Your task to perform on an android device: Open Youtube and go to the subscriptions tab Image 0: 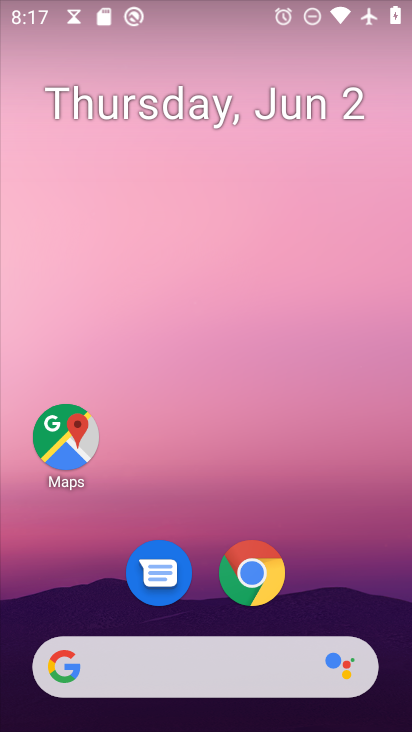
Step 0: press home button
Your task to perform on an android device: Open Youtube and go to the subscriptions tab Image 1: 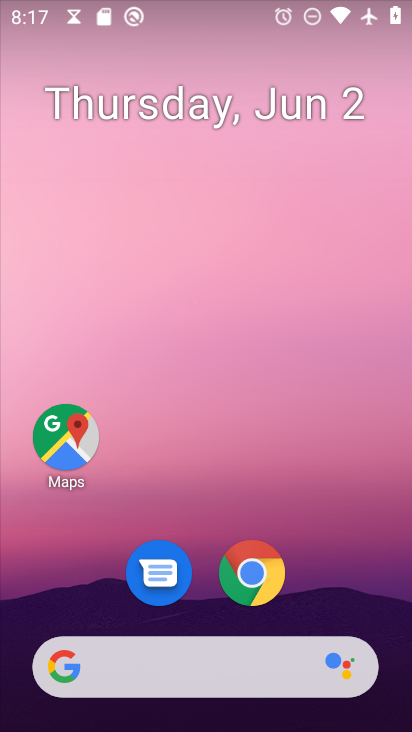
Step 1: drag from (223, 663) to (411, 66)
Your task to perform on an android device: Open Youtube and go to the subscriptions tab Image 2: 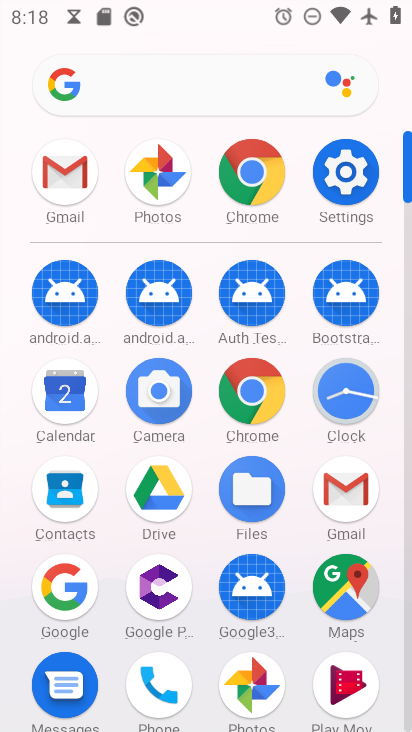
Step 2: drag from (313, 338) to (411, 120)
Your task to perform on an android device: Open Youtube and go to the subscriptions tab Image 3: 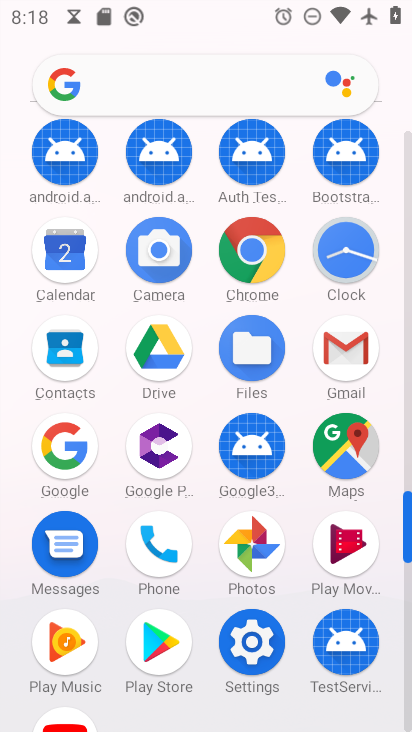
Step 3: drag from (224, 578) to (337, 182)
Your task to perform on an android device: Open Youtube and go to the subscriptions tab Image 4: 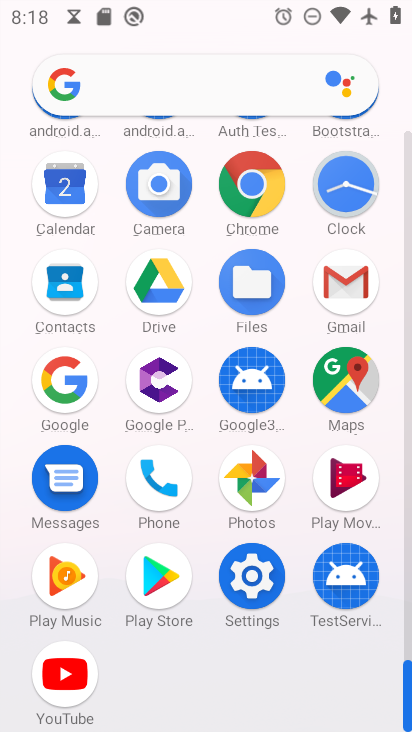
Step 4: click (63, 670)
Your task to perform on an android device: Open Youtube and go to the subscriptions tab Image 5: 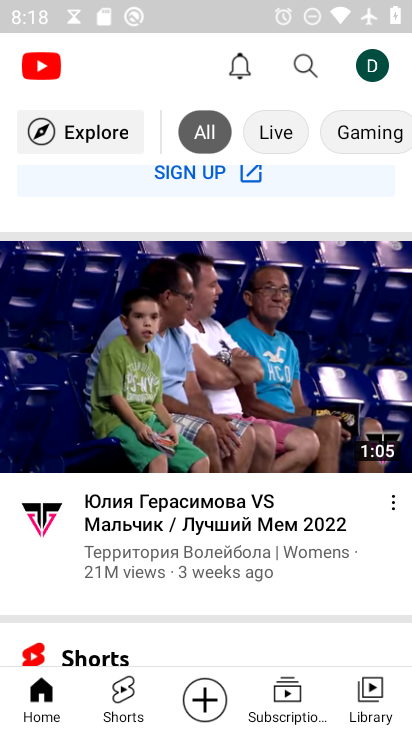
Step 5: click (281, 707)
Your task to perform on an android device: Open Youtube and go to the subscriptions tab Image 6: 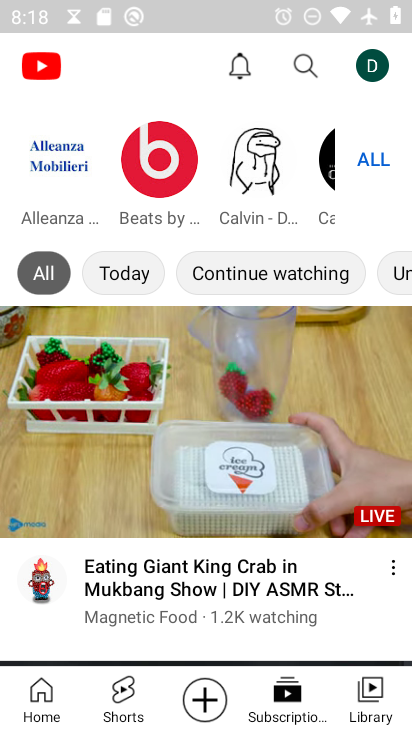
Step 6: task complete